Your task to perform on an android device: Open Maps and search for coffee Image 0: 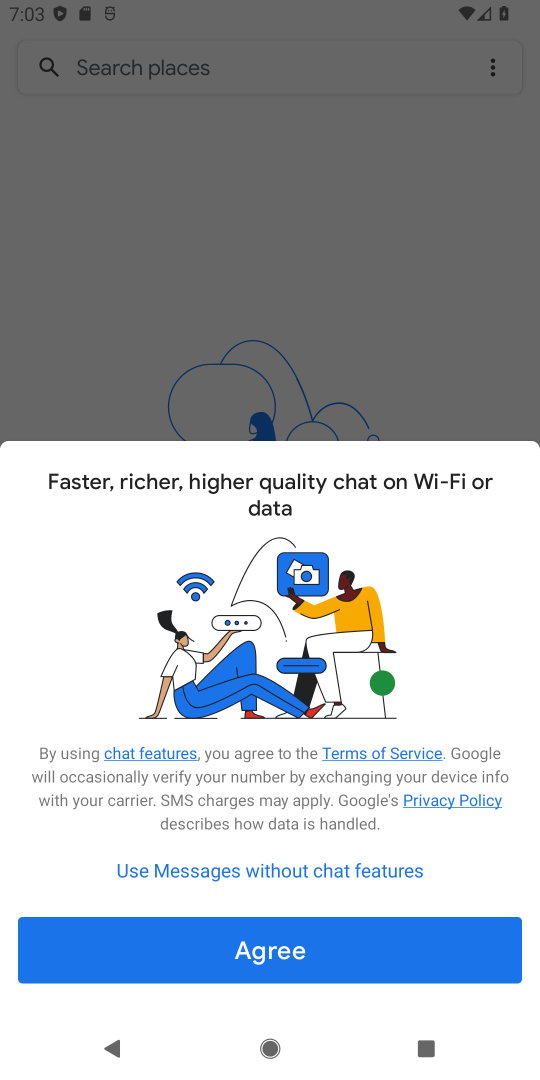
Step 0: press home button
Your task to perform on an android device: Open Maps and search for coffee Image 1: 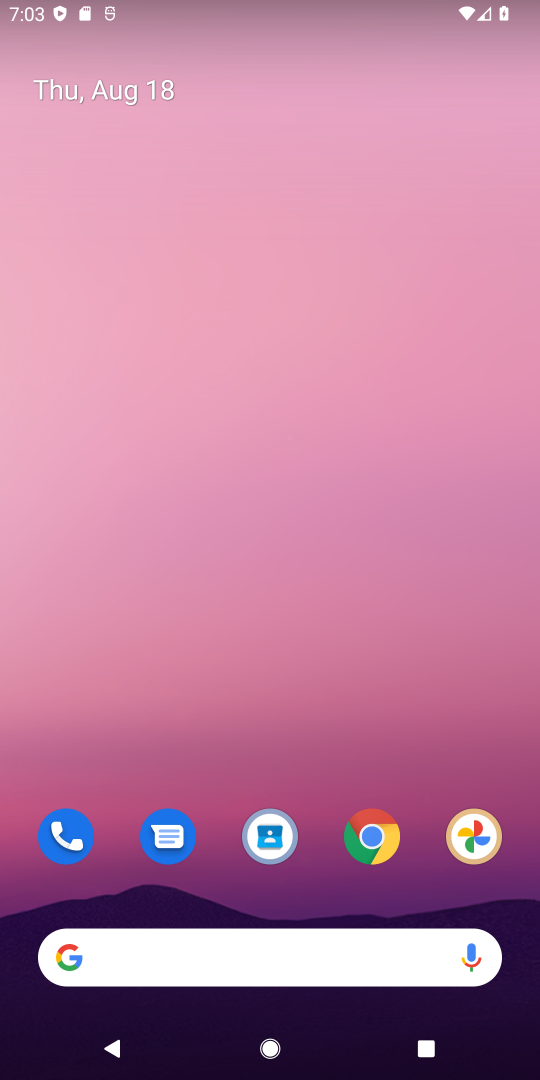
Step 1: drag from (315, 765) to (347, 138)
Your task to perform on an android device: Open Maps and search for coffee Image 2: 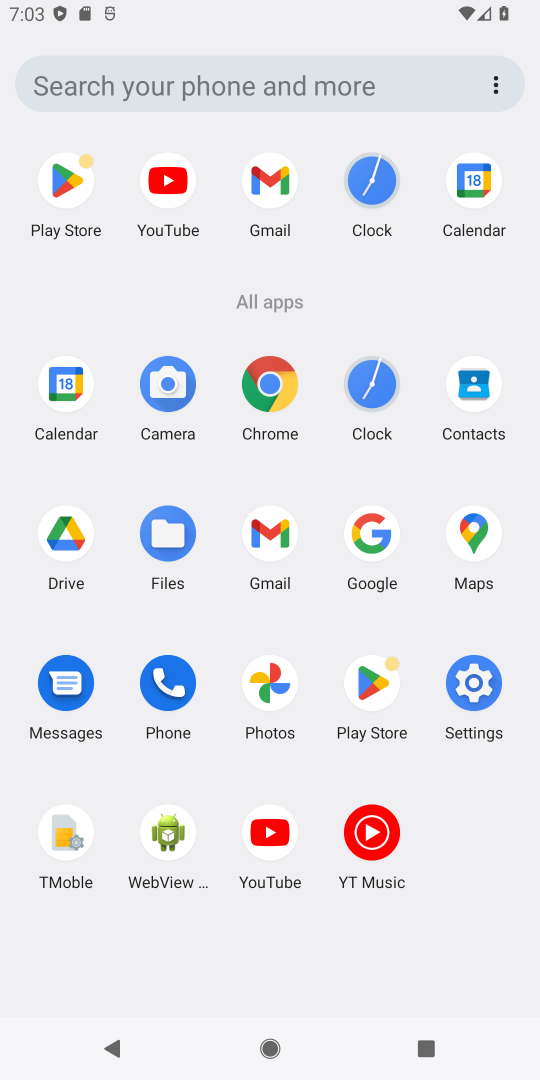
Step 2: click (461, 546)
Your task to perform on an android device: Open Maps and search for coffee Image 3: 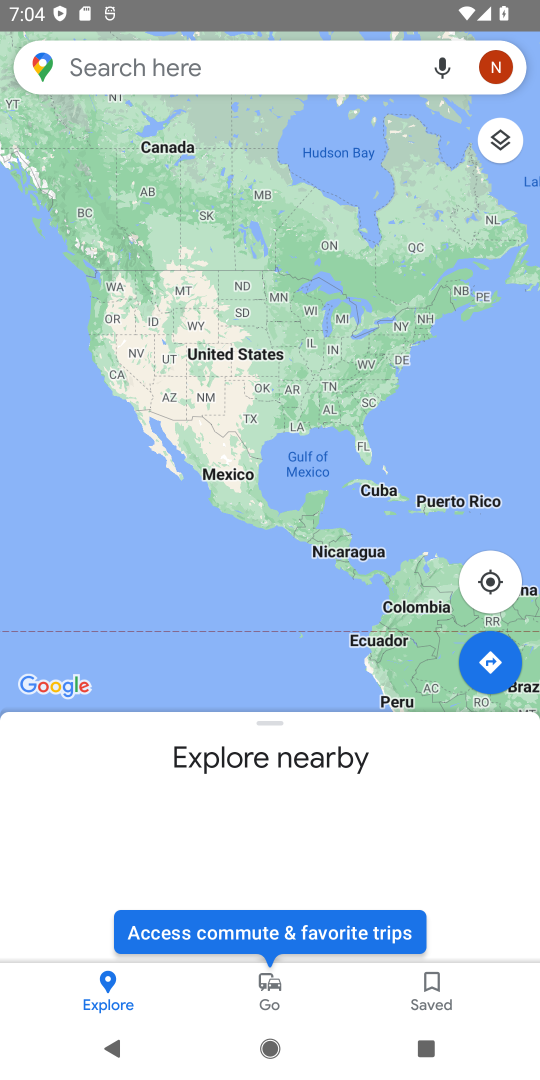
Step 3: click (358, 70)
Your task to perform on an android device: Open Maps and search for coffee Image 4: 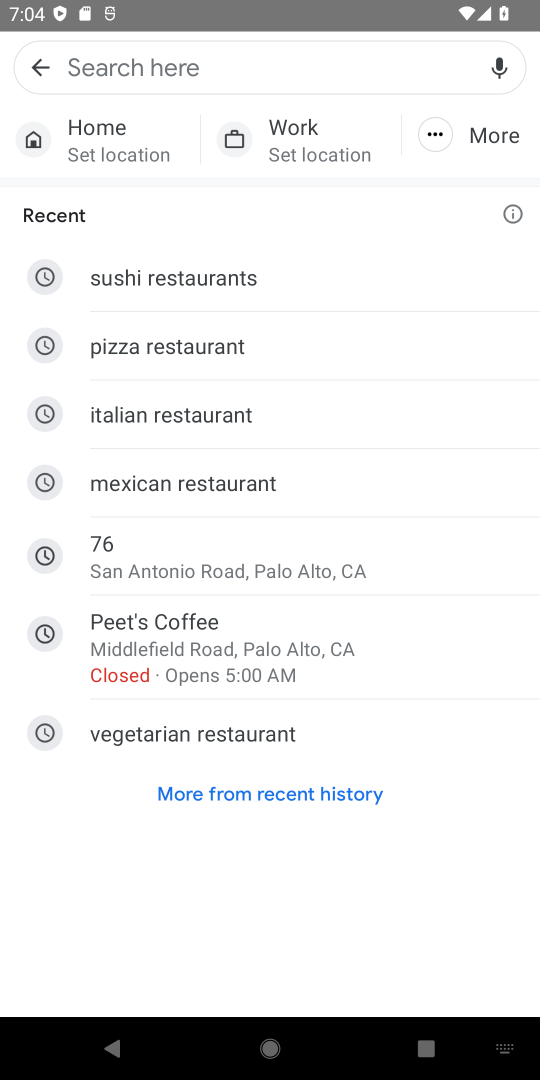
Step 4: type "ciffee"
Your task to perform on an android device: Open Maps and search for coffee Image 5: 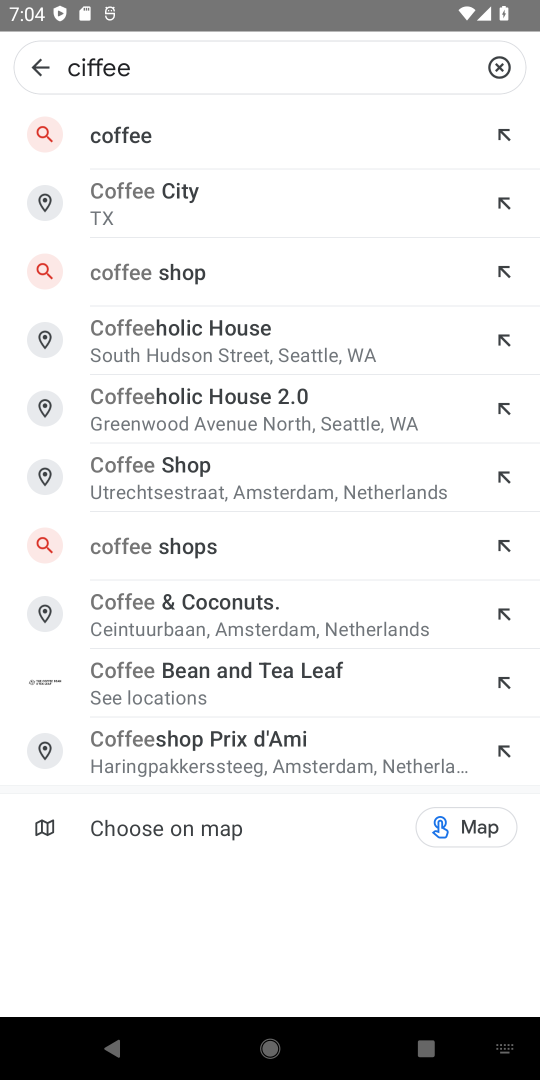
Step 5: click (184, 116)
Your task to perform on an android device: Open Maps and search for coffee Image 6: 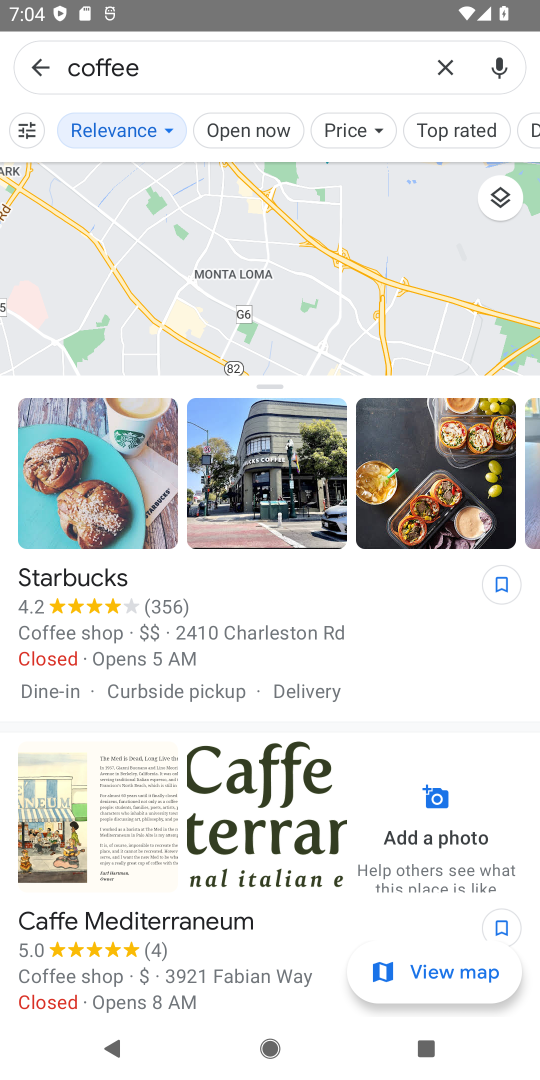
Step 6: task complete